Your task to perform on an android device: Open Wikipedia Image 0: 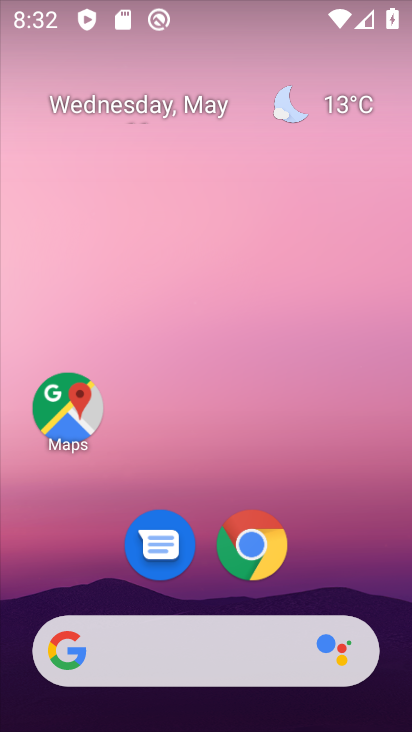
Step 0: drag from (286, 355) to (222, 17)
Your task to perform on an android device: Open Wikipedia Image 1: 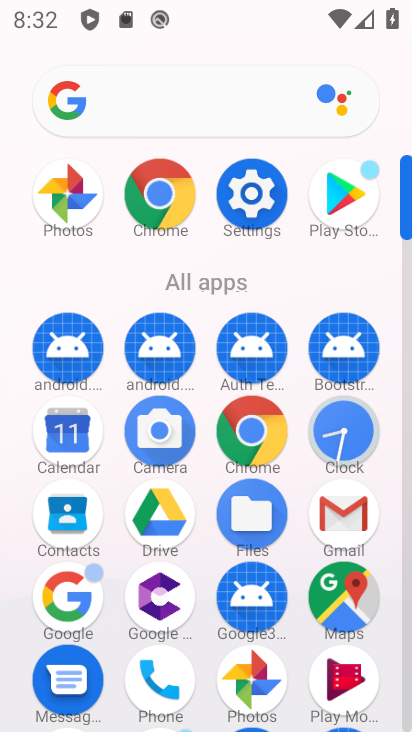
Step 1: drag from (2, 558) to (18, 244)
Your task to perform on an android device: Open Wikipedia Image 2: 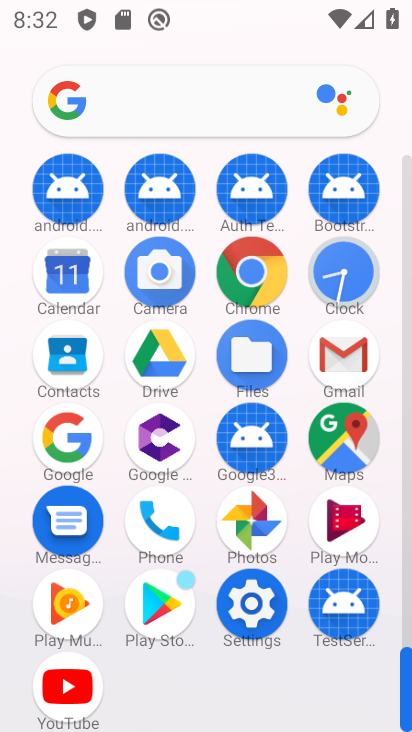
Step 2: click (252, 272)
Your task to perform on an android device: Open Wikipedia Image 3: 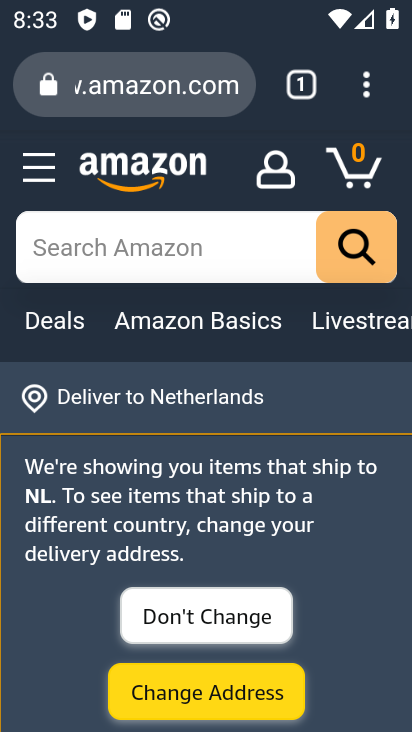
Step 3: click (177, 84)
Your task to perform on an android device: Open Wikipedia Image 4: 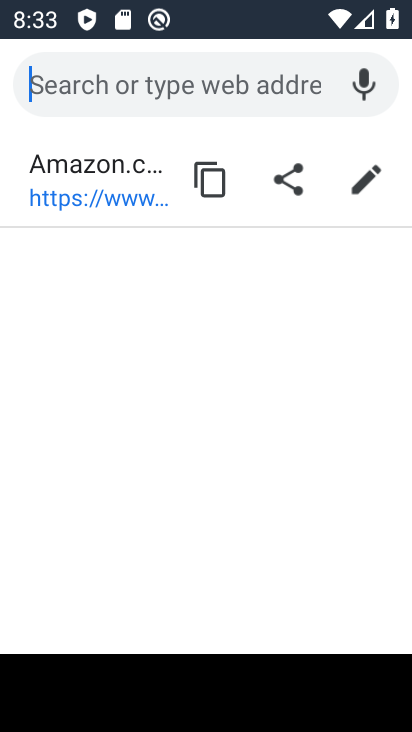
Step 4: type "Wikipedia"
Your task to perform on an android device: Open Wikipedia Image 5: 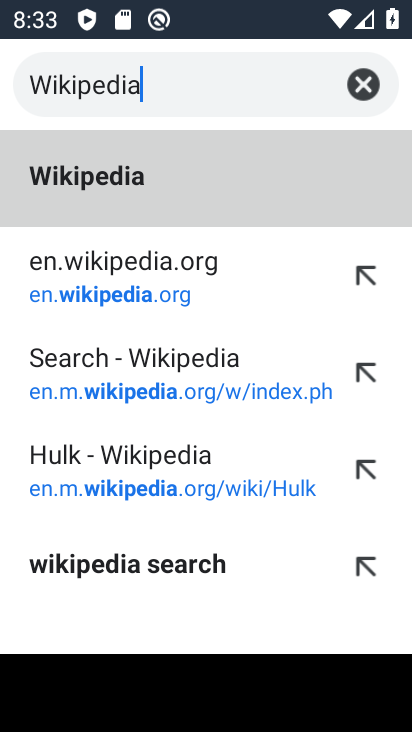
Step 5: type ""
Your task to perform on an android device: Open Wikipedia Image 6: 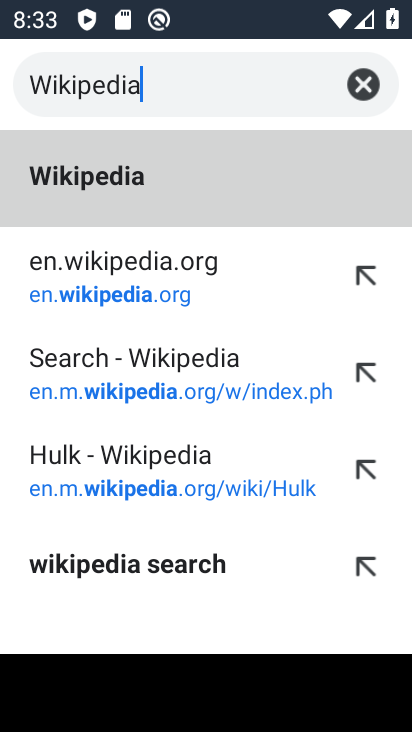
Step 6: click (144, 275)
Your task to perform on an android device: Open Wikipedia Image 7: 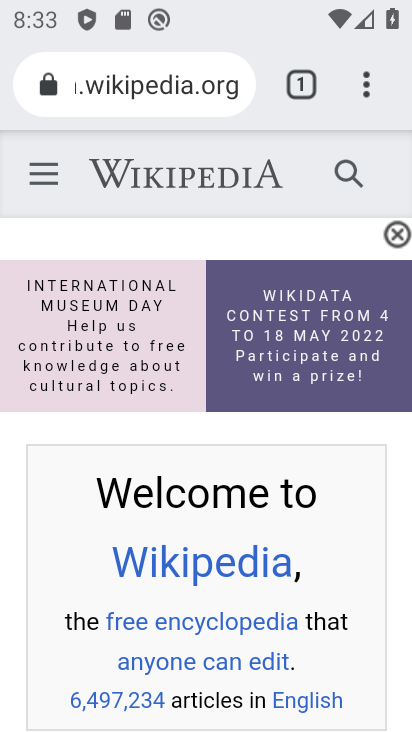
Step 7: task complete